Your task to perform on an android device: turn on priority inbox in the gmail app Image 0: 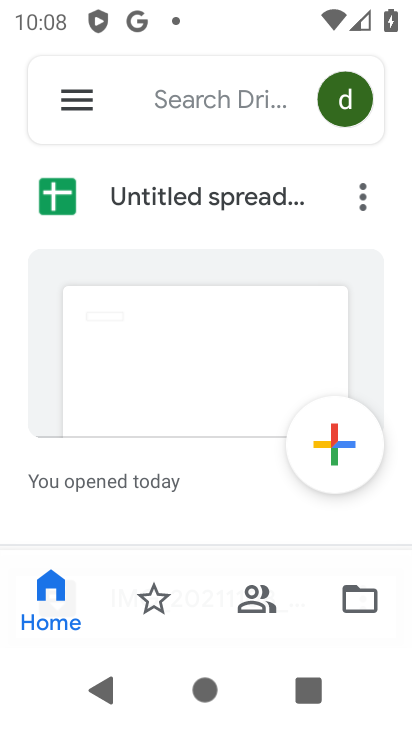
Step 0: press back button
Your task to perform on an android device: turn on priority inbox in the gmail app Image 1: 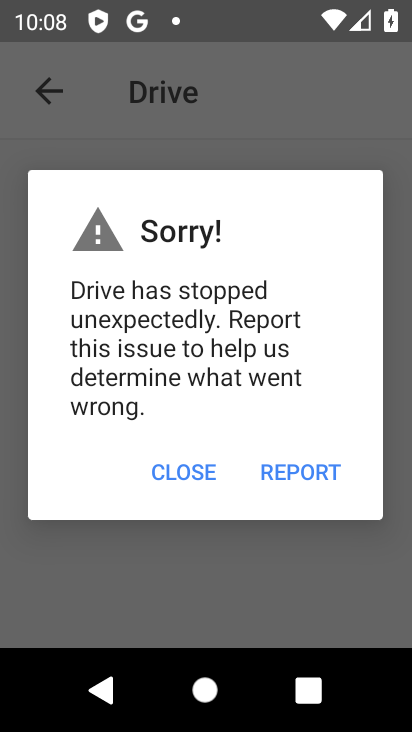
Step 1: press home button
Your task to perform on an android device: turn on priority inbox in the gmail app Image 2: 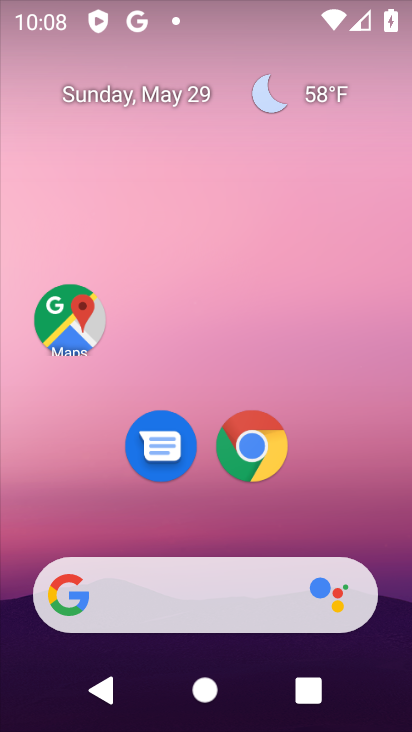
Step 2: drag from (333, 494) to (189, 2)
Your task to perform on an android device: turn on priority inbox in the gmail app Image 3: 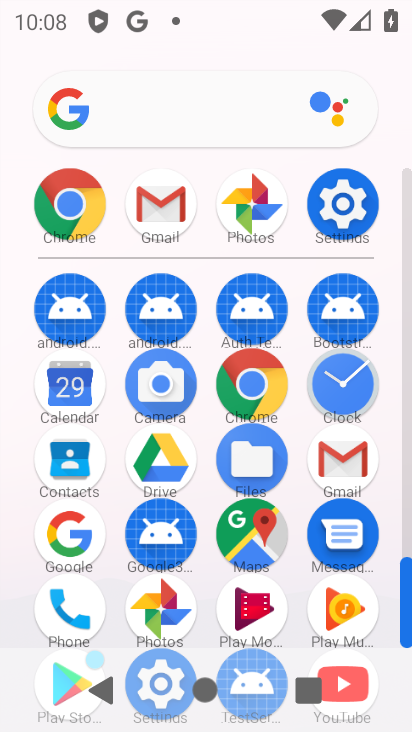
Step 3: drag from (16, 591) to (5, 252)
Your task to perform on an android device: turn on priority inbox in the gmail app Image 4: 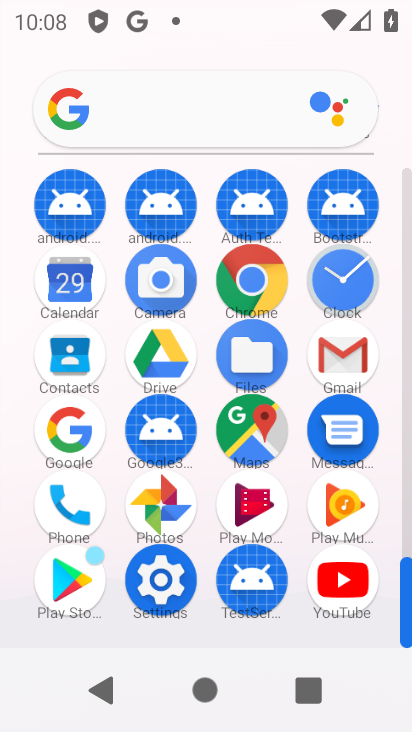
Step 4: click (342, 375)
Your task to perform on an android device: turn on priority inbox in the gmail app Image 5: 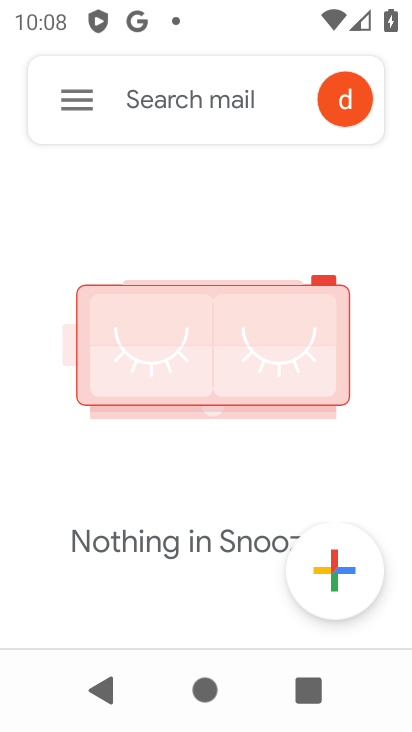
Step 5: click (74, 101)
Your task to perform on an android device: turn on priority inbox in the gmail app Image 6: 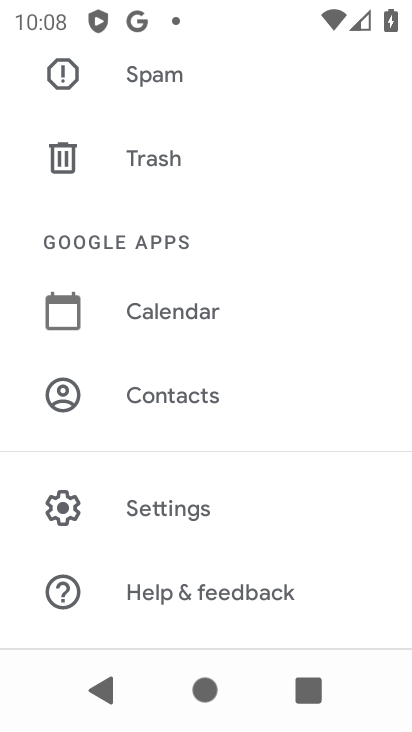
Step 6: click (187, 503)
Your task to perform on an android device: turn on priority inbox in the gmail app Image 7: 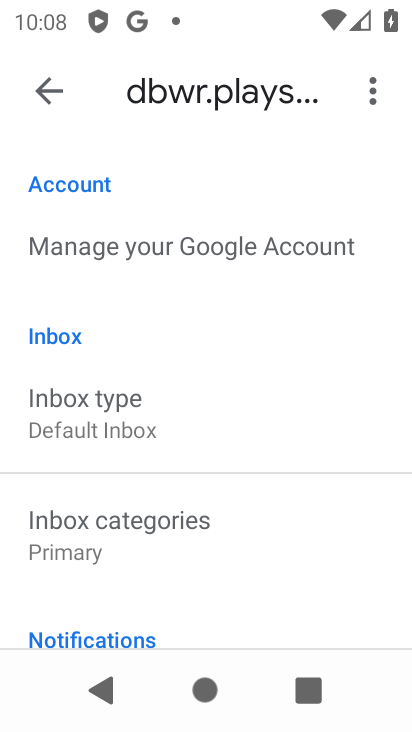
Step 7: click (143, 409)
Your task to perform on an android device: turn on priority inbox in the gmail app Image 8: 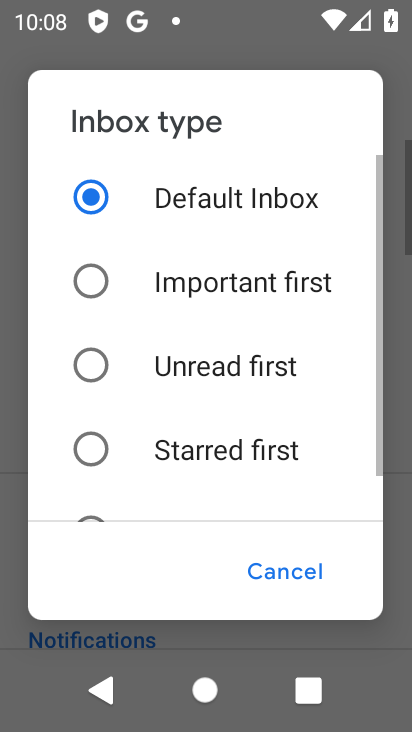
Step 8: drag from (158, 477) to (186, 105)
Your task to perform on an android device: turn on priority inbox in the gmail app Image 9: 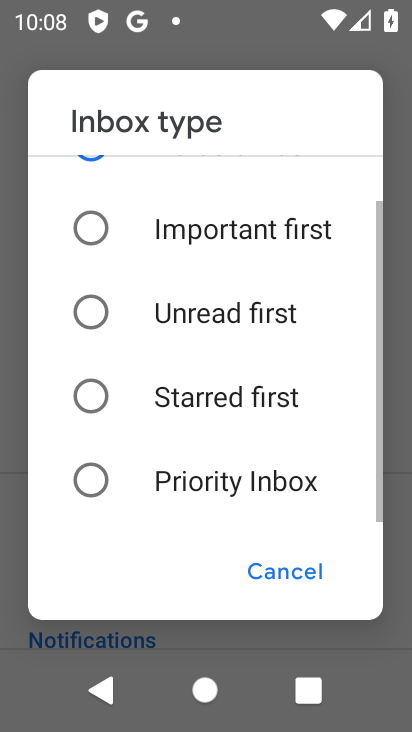
Step 9: click (130, 495)
Your task to perform on an android device: turn on priority inbox in the gmail app Image 10: 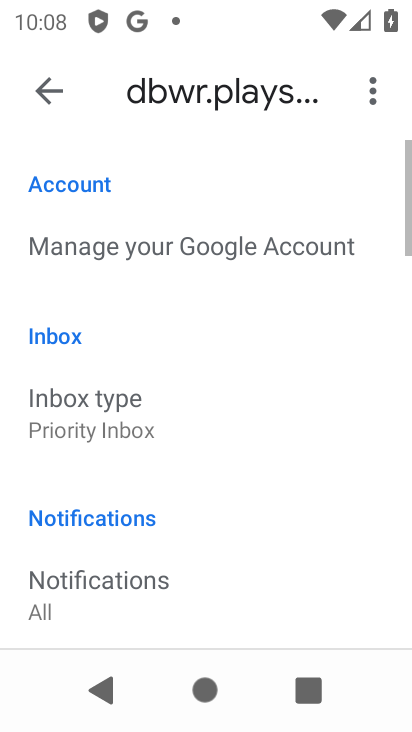
Step 10: task complete